Your task to perform on an android device: Is it going to rain this weekend? Image 0: 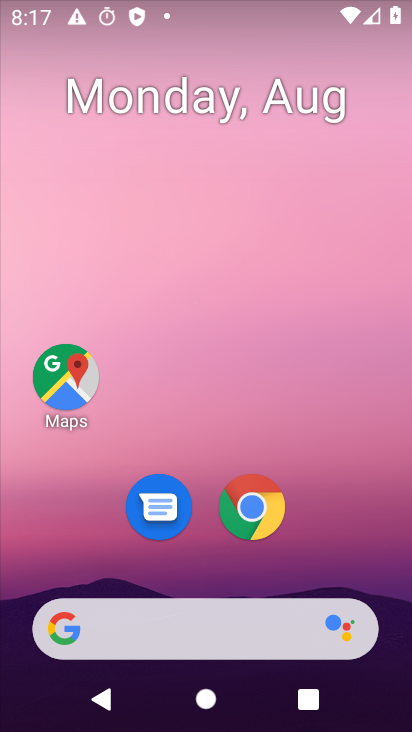
Step 0: click (190, 630)
Your task to perform on an android device: Is it going to rain this weekend? Image 1: 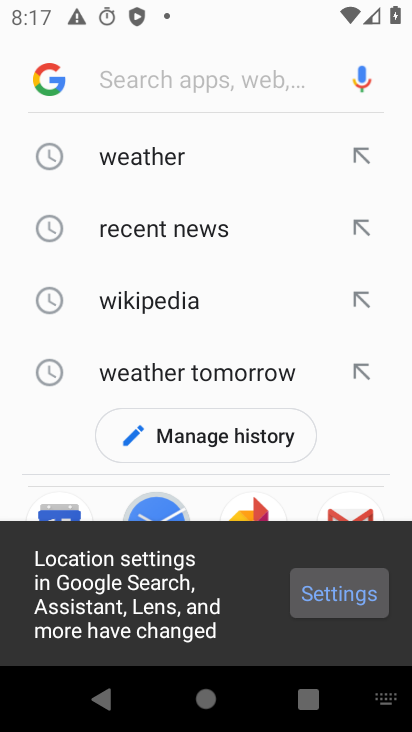
Step 1: click (165, 158)
Your task to perform on an android device: Is it going to rain this weekend? Image 2: 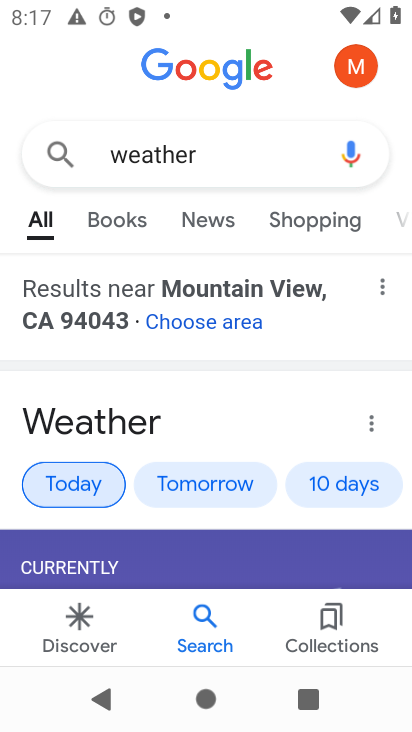
Step 2: click (343, 482)
Your task to perform on an android device: Is it going to rain this weekend? Image 3: 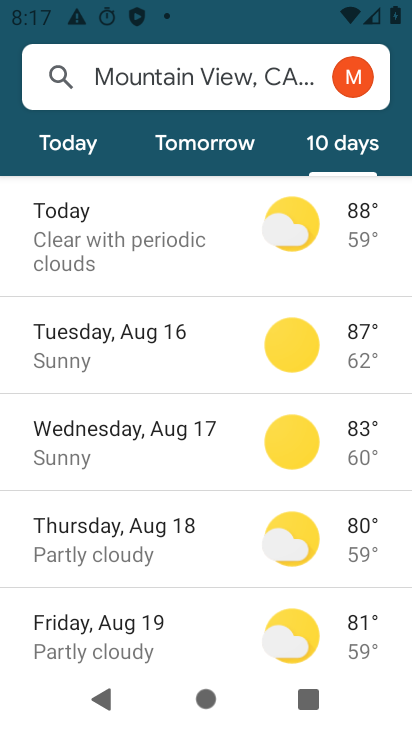
Step 3: drag from (129, 599) to (270, 197)
Your task to perform on an android device: Is it going to rain this weekend? Image 4: 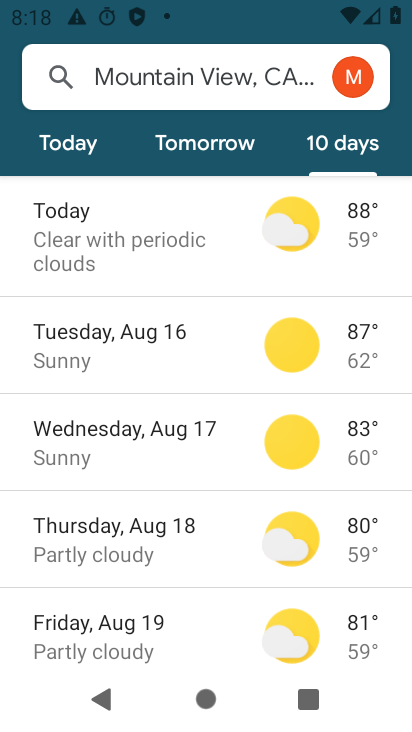
Step 4: drag from (231, 625) to (276, 161)
Your task to perform on an android device: Is it going to rain this weekend? Image 5: 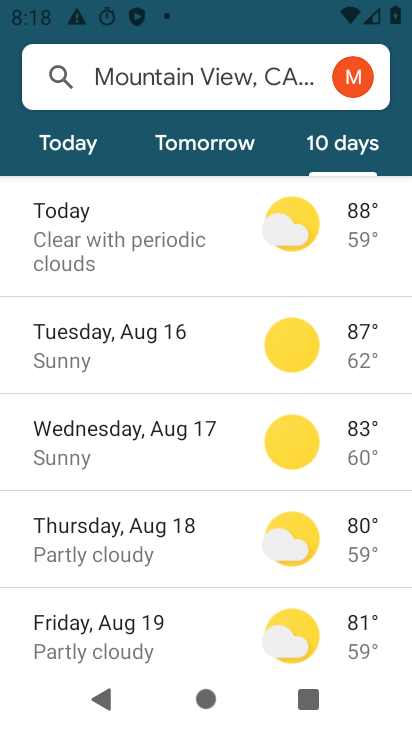
Step 5: drag from (108, 475) to (215, 75)
Your task to perform on an android device: Is it going to rain this weekend? Image 6: 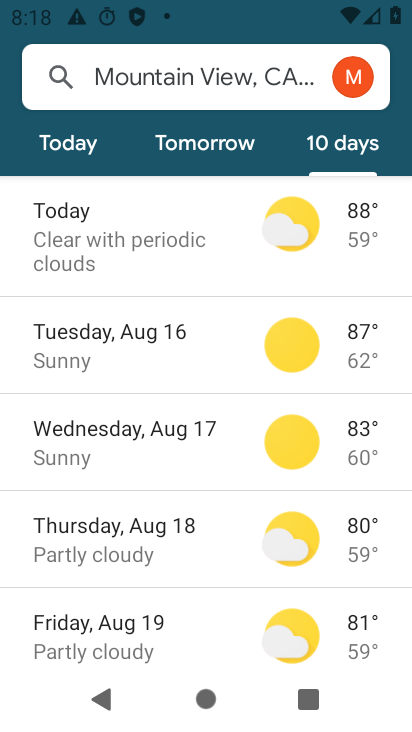
Step 6: drag from (229, 626) to (264, 153)
Your task to perform on an android device: Is it going to rain this weekend? Image 7: 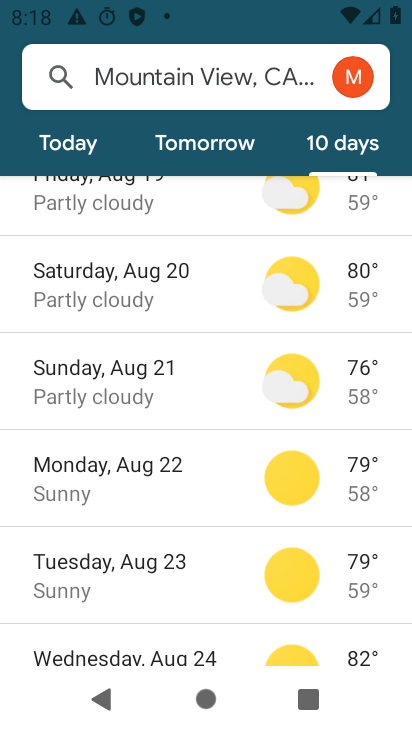
Step 7: click (138, 297)
Your task to perform on an android device: Is it going to rain this weekend? Image 8: 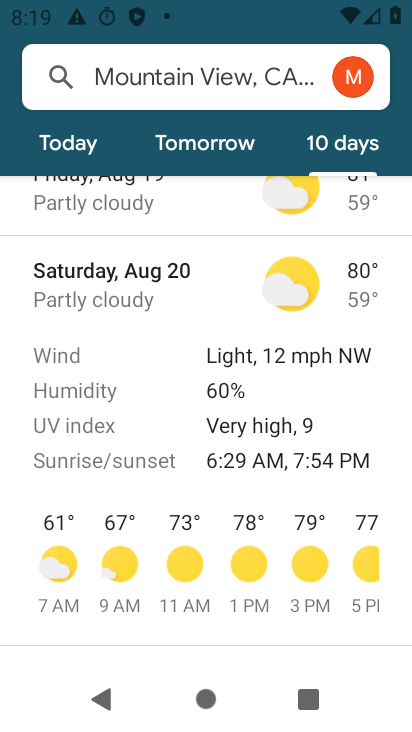
Step 8: task complete